Your task to perform on an android device: Open Google Image 0: 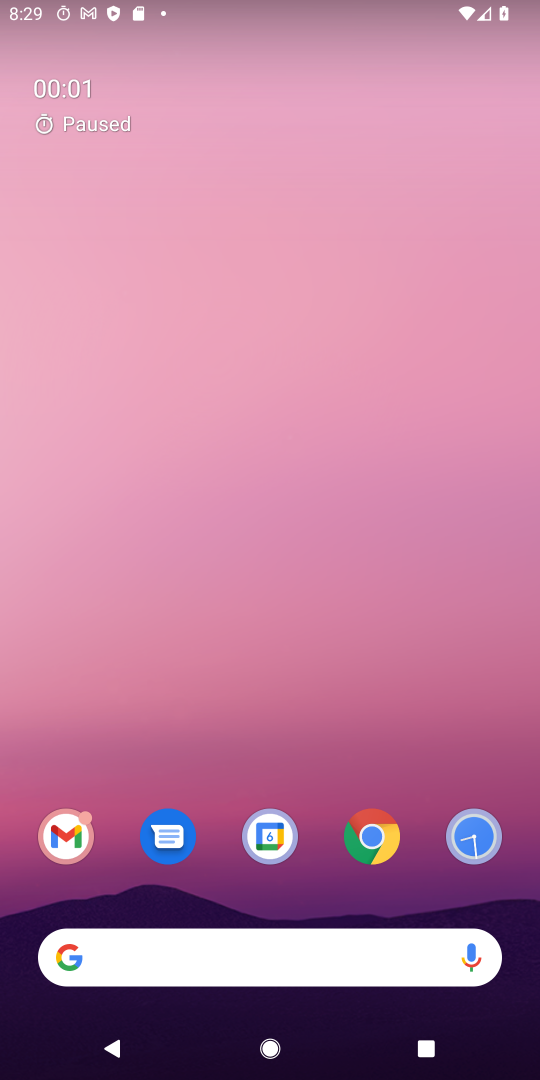
Step 0: drag from (418, 785) to (323, 141)
Your task to perform on an android device: Open Google Image 1: 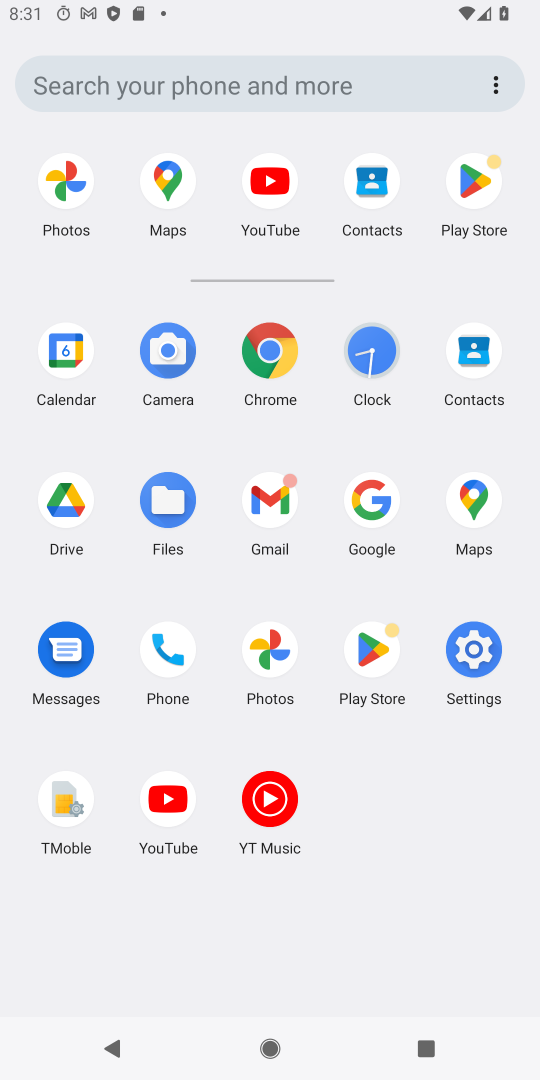
Step 1: click (349, 509)
Your task to perform on an android device: Open Google Image 2: 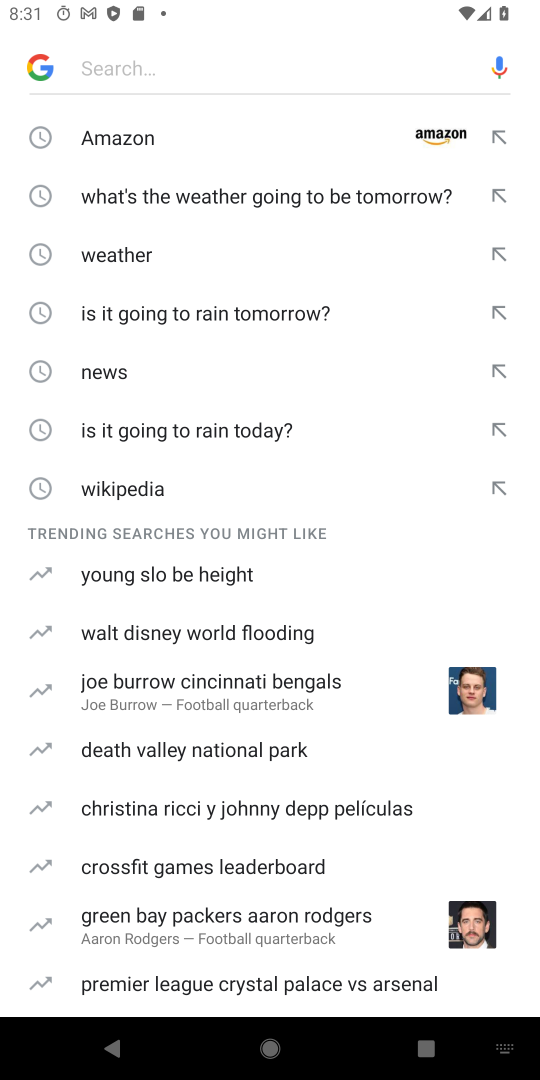
Step 2: task complete